Your task to perform on an android device: turn on the 24-hour format for clock Image 0: 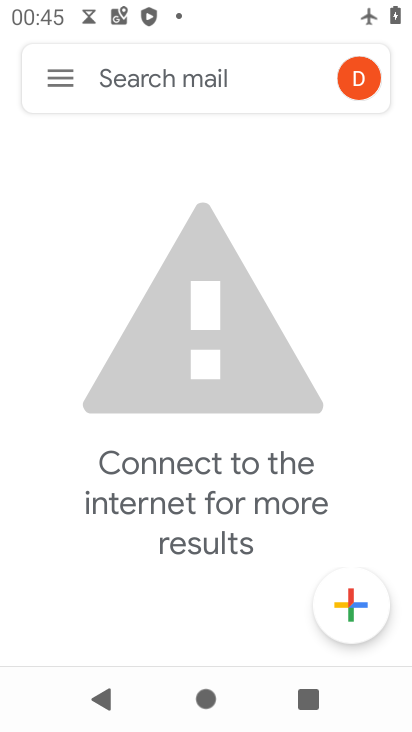
Step 0: press home button
Your task to perform on an android device: turn on the 24-hour format for clock Image 1: 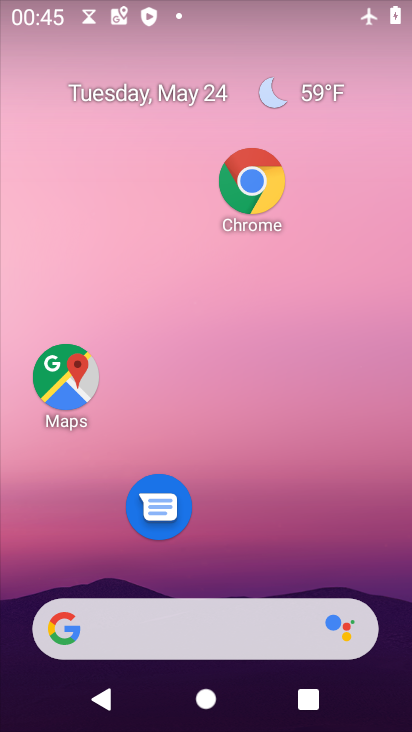
Step 1: drag from (299, 450) to (336, 169)
Your task to perform on an android device: turn on the 24-hour format for clock Image 2: 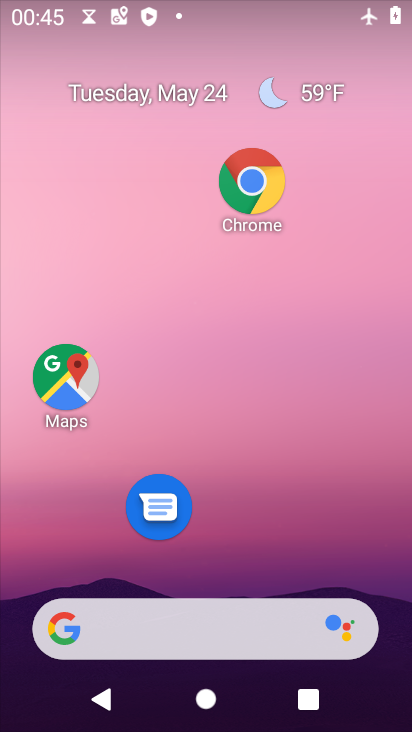
Step 2: drag from (229, 646) to (305, 288)
Your task to perform on an android device: turn on the 24-hour format for clock Image 3: 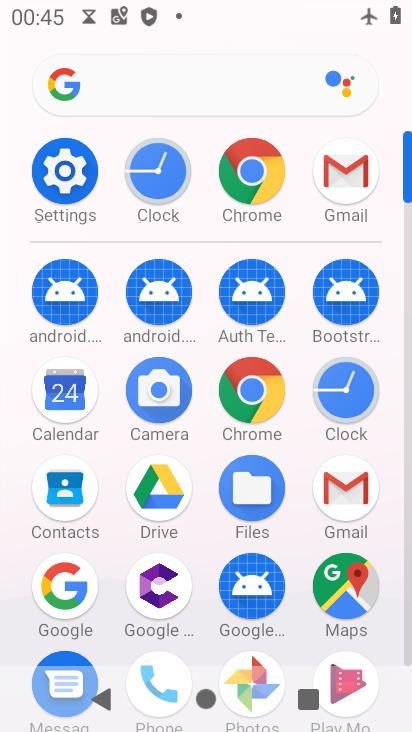
Step 3: click (322, 386)
Your task to perform on an android device: turn on the 24-hour format for clock Image 4: 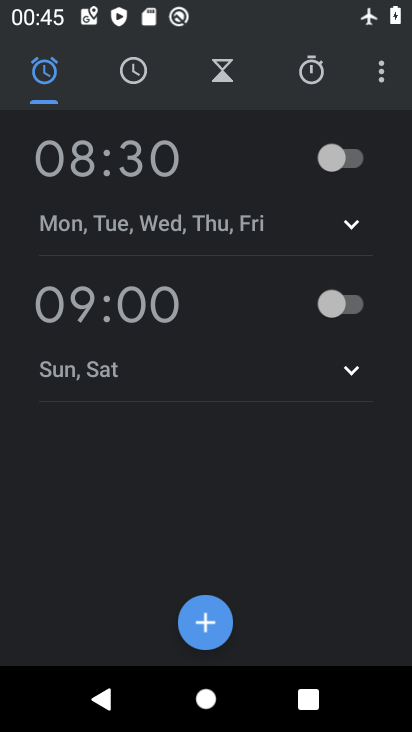
Step 4: click (386, 72)
Your task to perform on an android device: turn on the 24-hour format for clock Image 5: 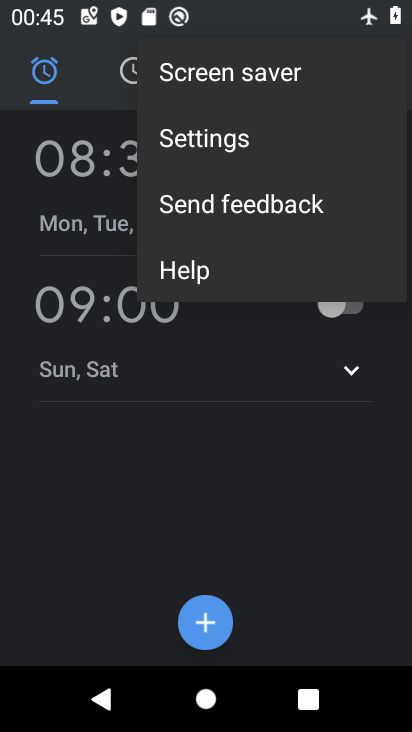
Step 5: click (244, 131)
Your task to perform on an android device: turn on the 24-hour format for clock Image 6: 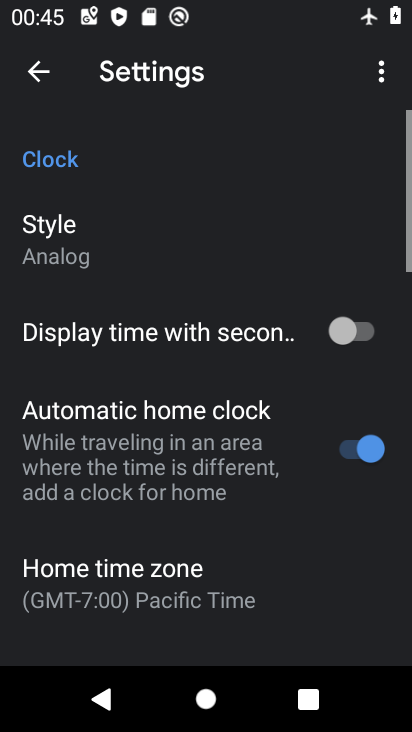
Step 6: drag from (259, 489) to (255, 148)
Your task to perform on an android device: turn on the 24-hour format for clock Image 7: 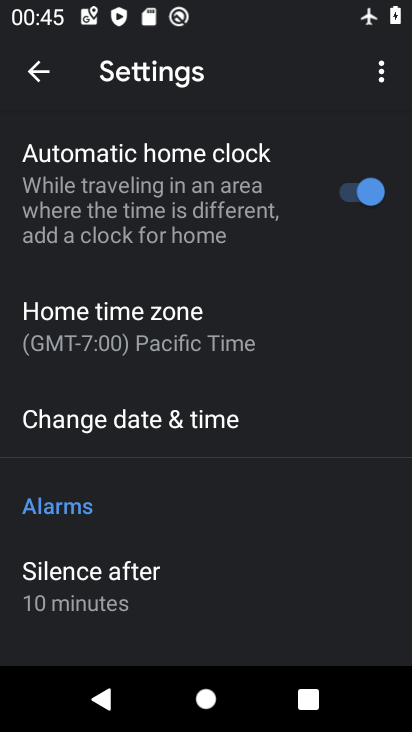
Step 7: drag from (162, 534) to (224, 251)
Your task to perform on an android device: turn on the 24-hour format for clock Image 8: 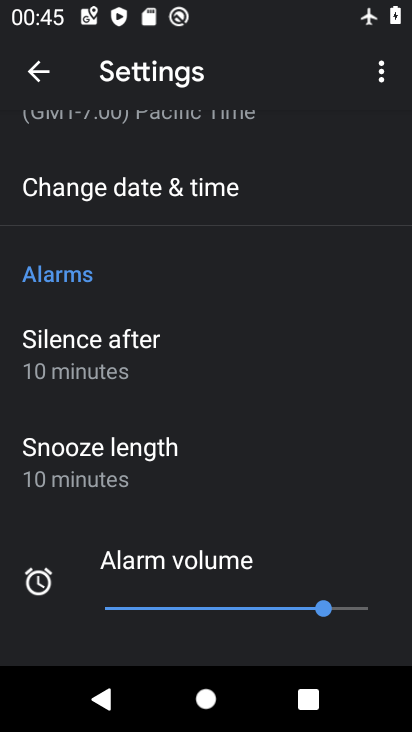
Step 8: click (190, 194)
Your task to perform on an android device: turn on the 24-hour format for clock Image 9: 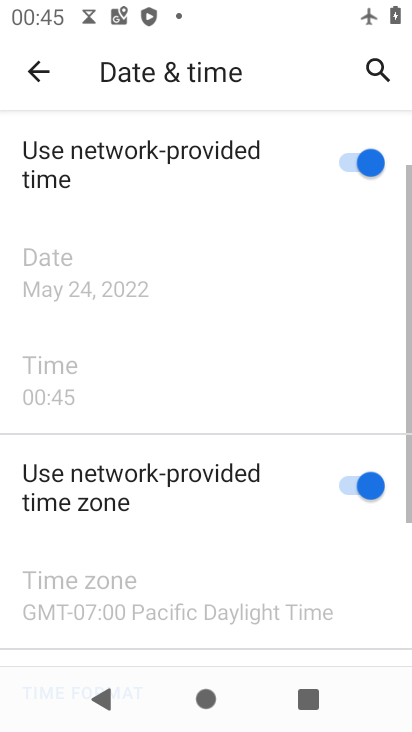
Step 9: task complete